Your task to perform on an android device: toggle notifications settings in the gmail app Image 0: 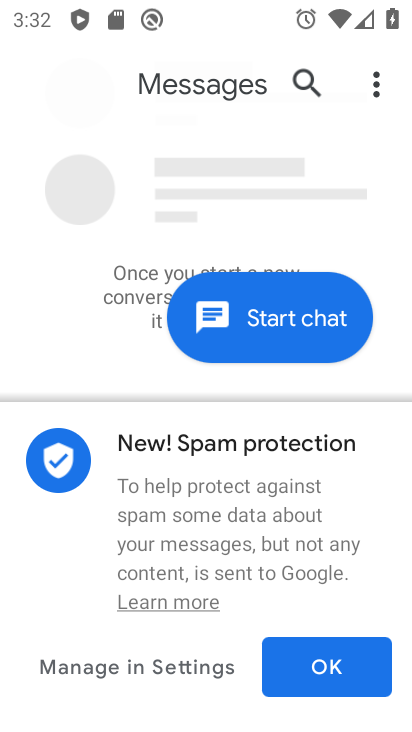
Step 0: click (405, 486)
Your task to perform on an android device: toggle notifications settings in the gmail app Image 1: 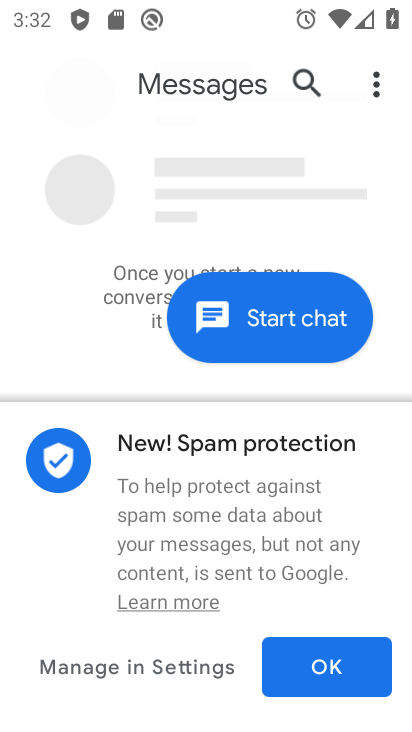
Step 1: press home button
Your task to perform on an android device: toggle notifications settings in the gmail app Image 2: 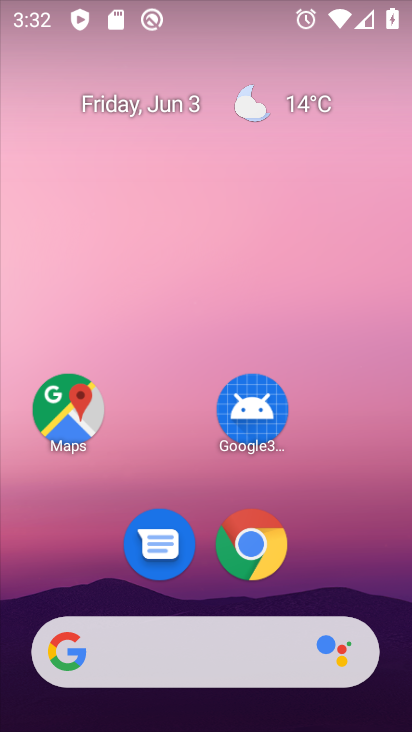
Step 2: drag from (69, 600) to (173, 102)
Your task to perform on an android device: toggle notifications settings in the gmail app Image 3: 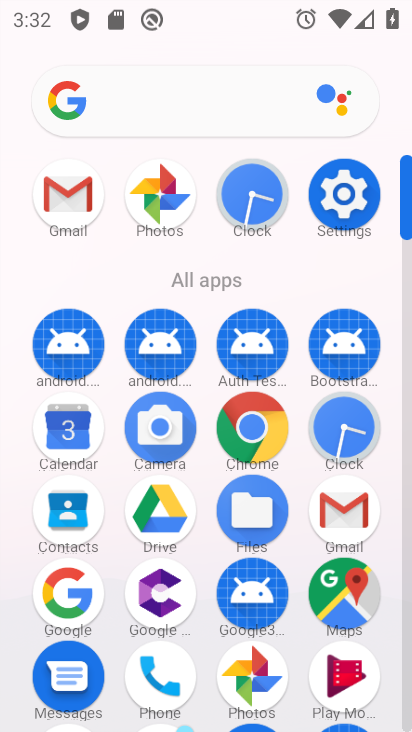
Step 3: drag from (151, 593) to (209, 340)
Your task to perform on an android device: toggle notifications settings in the gmail app Image 4: 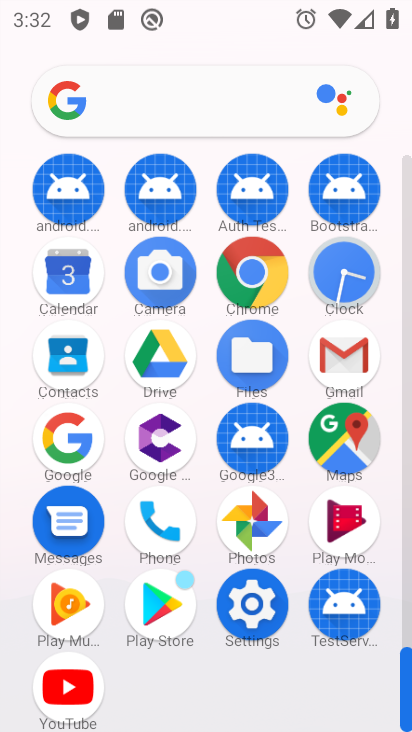
Step 4: click (345, 358)
Your task to perform on an android device: toggle notifications settings in the gmail app Image 5: 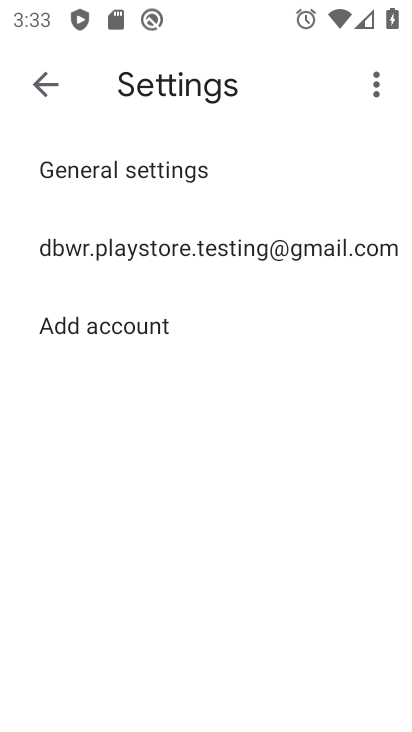
Step 5: click (230, 251)
Your task to perform on an android device: toggle notifications settings in the gmail app Image 6: 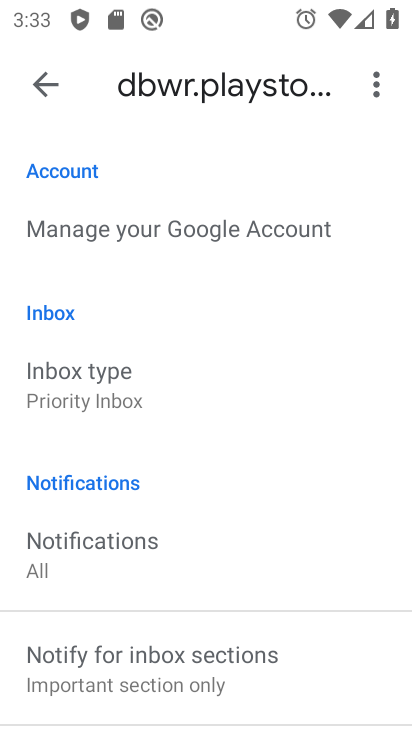
Step 6: drag from (175, 598) to (337, 162)
Your task to perform on an android device: toggle notifications settings in the gmail app Image 7: 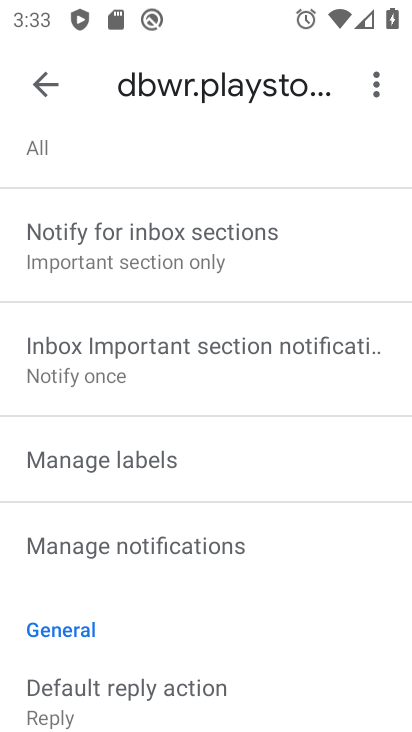
Step 7: click (179, 554)
Your task to perform on an android device: toggle notifications settings in the gmail app Image 8: 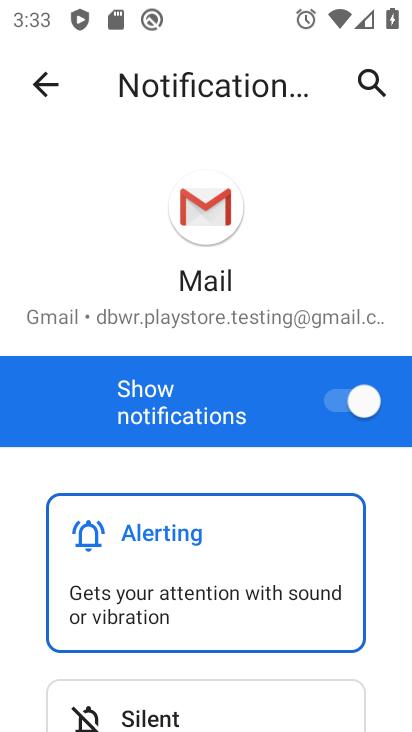
Step 8: click (351, 412)
Your task to perform on an android device: toggle notifications settings in the gmail app Image 9: 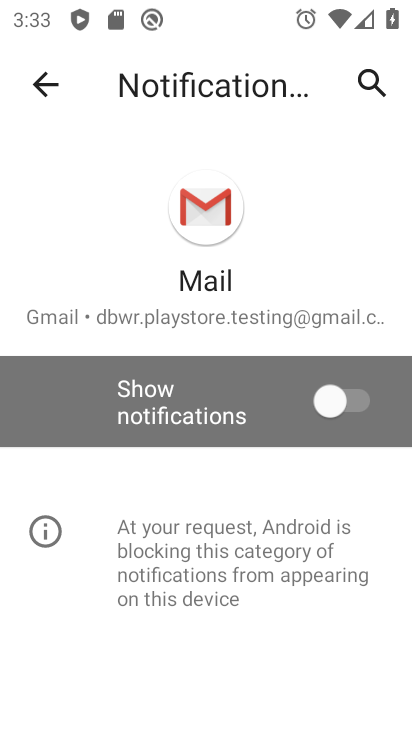
Step 9: task complete